Your task to perform on an android device: change the clock style Image 0: 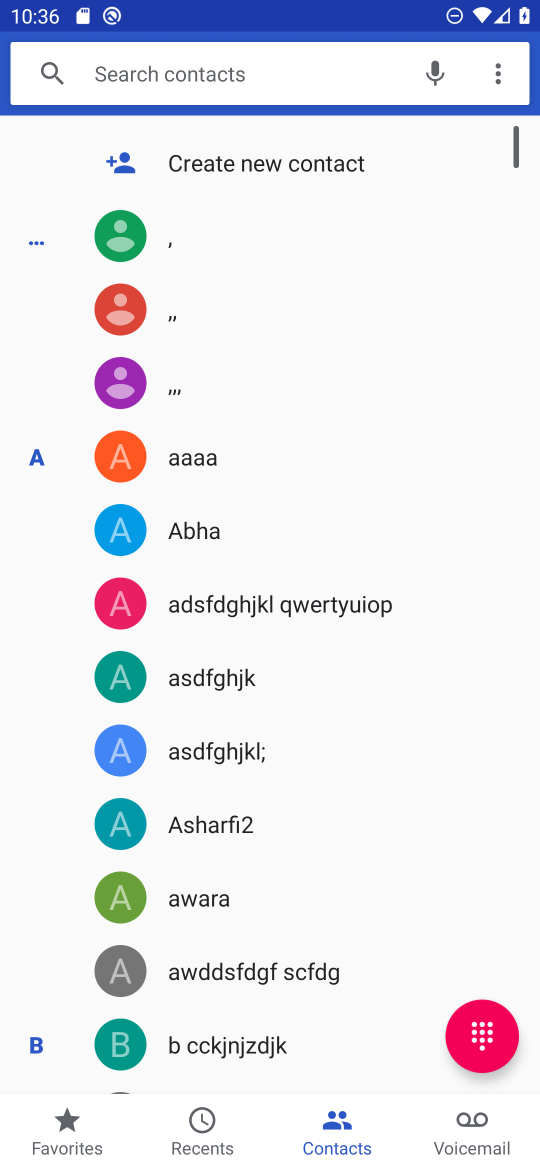
Step 0: press home button
Your task to perform on an android device: change the clock style Image 1: 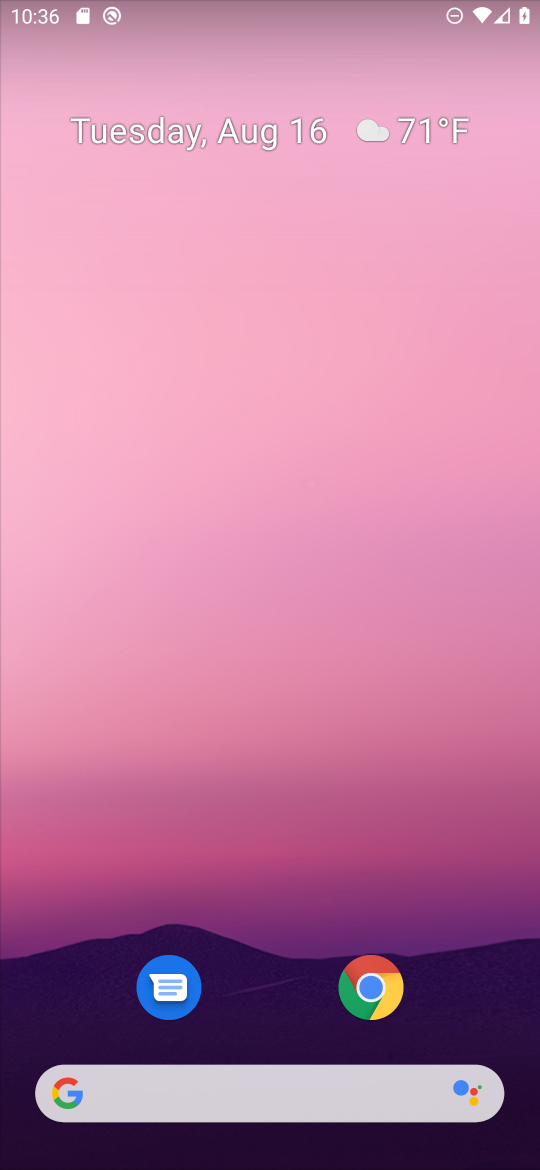
Step 1: drag from (86, 1051) to (296, 604)
Your task to perform on an android device: change the clock style Image 2: 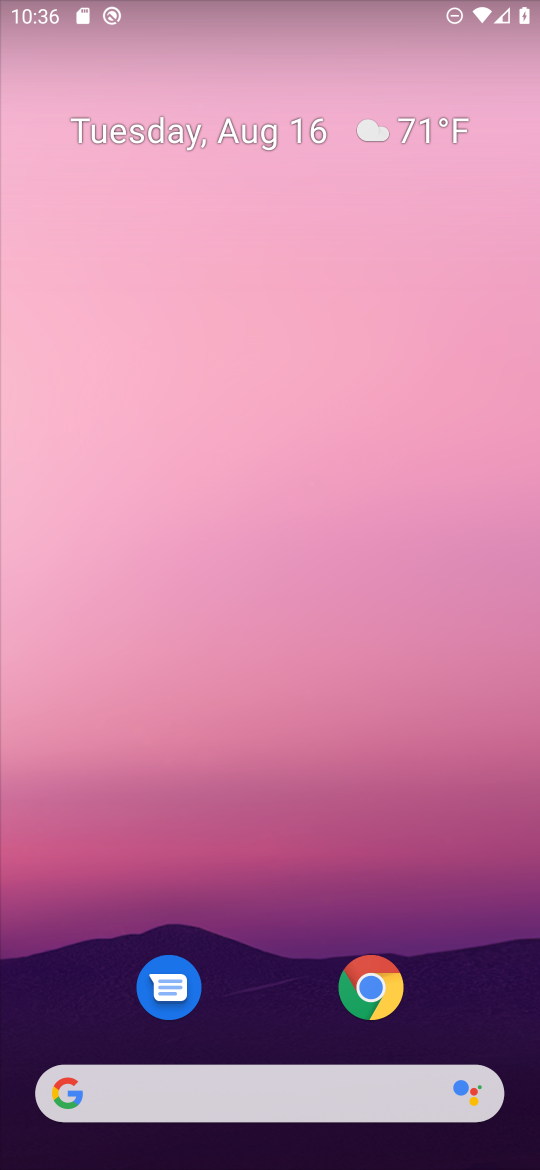
Step 2: drag from (13, 1109) to (283, 492)
Your task to perform on an android device: change the clock style Image 3: 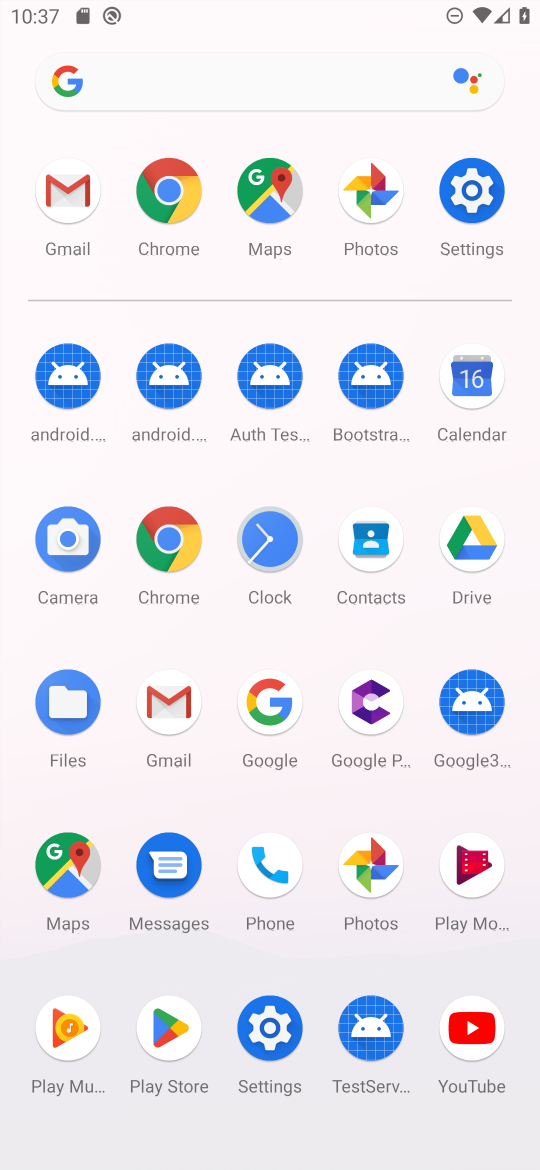
Step 3: click (249, 555)
Your task to perform on an android device: change the clock style Image 4: 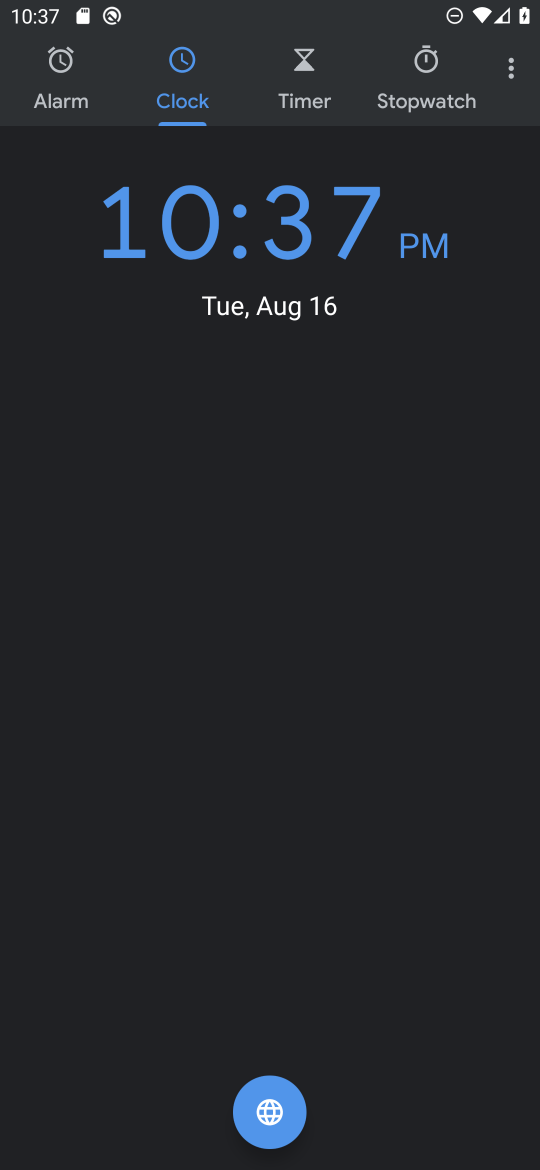
Step 4: click (513, 74)
Your task to perform on an android device: change the clock style Image 5: 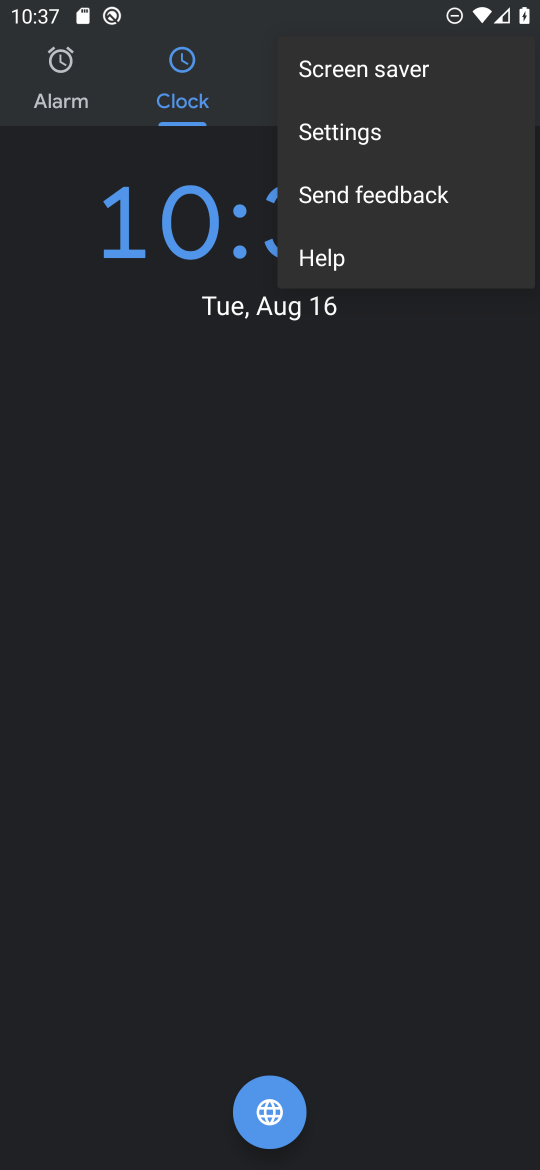
Step 5: click (367, 130)
Your task to perform on an android device: change the clock style Image 6: 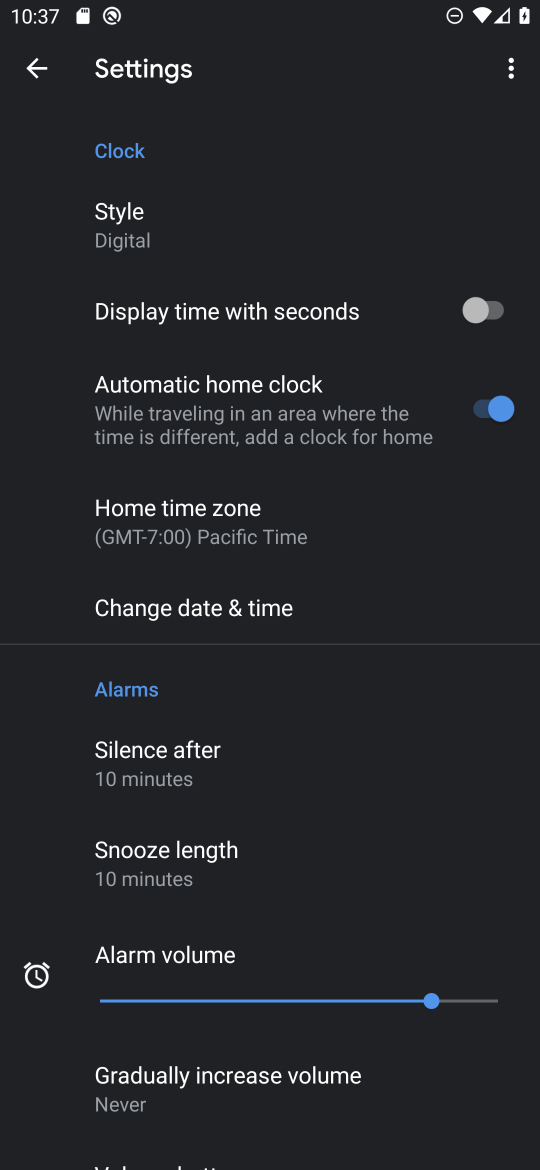
Step 6: click (154, 215)
Your task to perform on an android device: change the clock style Image 7: 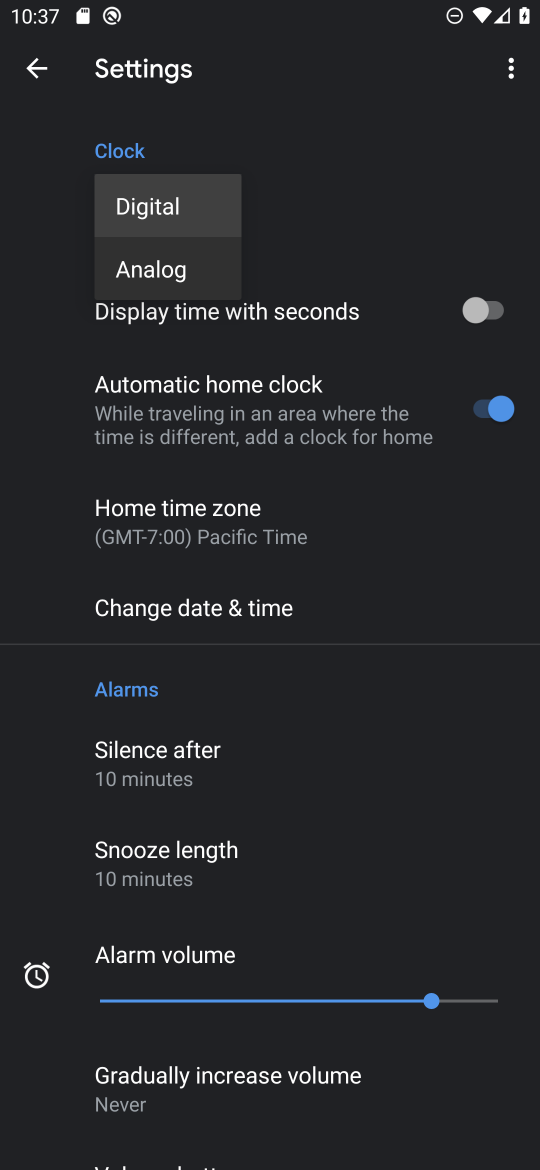
Step 7: click (151, 287)
Your task to perform on an android device: change the clock style Image 8: 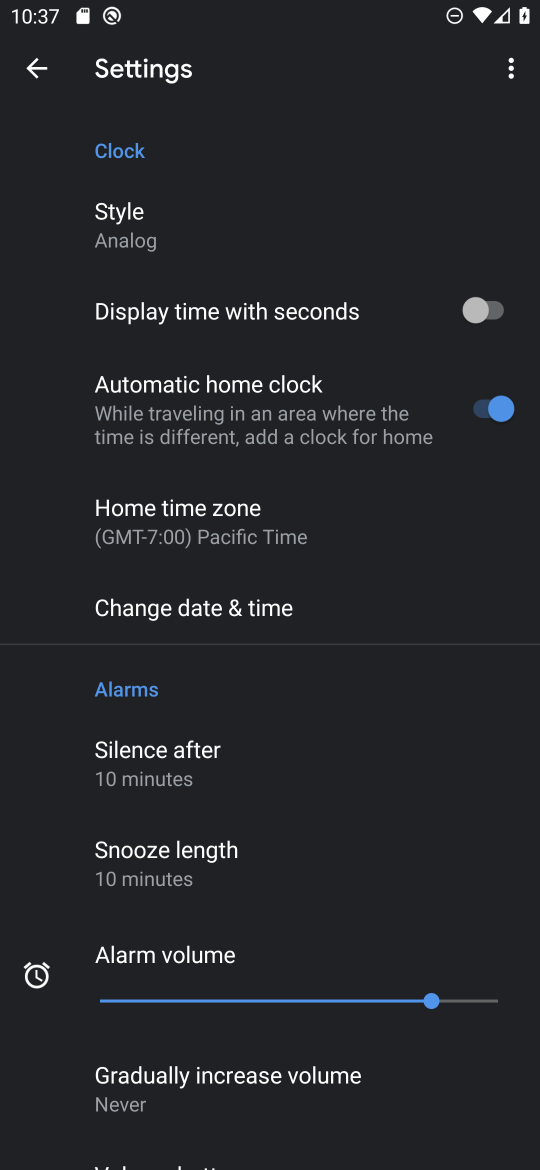
Step 8: task complete